Your task to perform on an android device: turn off location history Image 0: 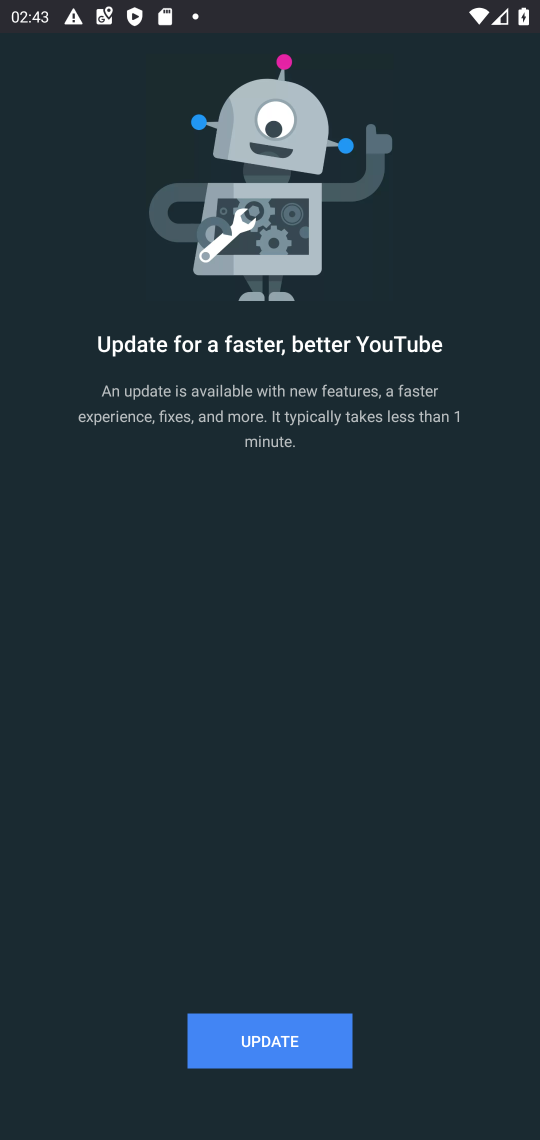
Step 0: press home button
Your task to perform on an android device: turn off location history Image 1: 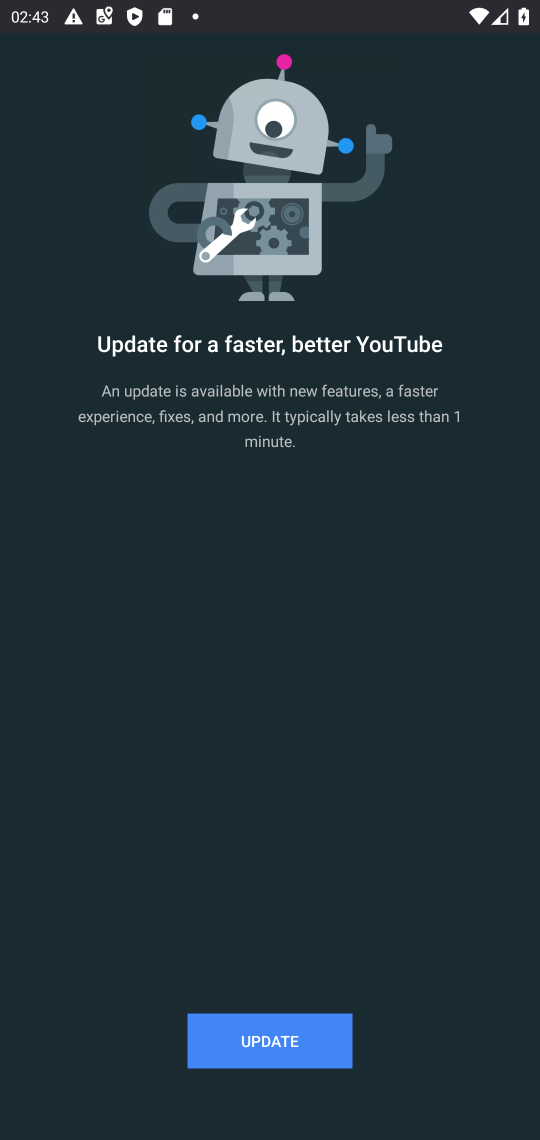
Step 1: press home button
Your task to perform on an android device: turn off location history Image 2: 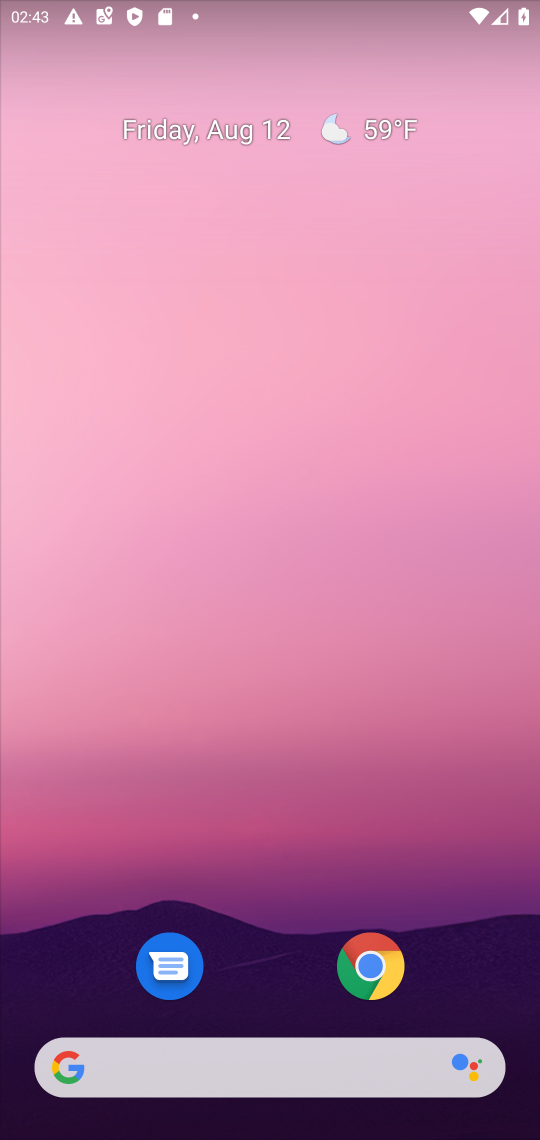
Step 2: drag from (251, 949) to (354, 15)
Your task to perform on an android device: turn off location history Image 3: 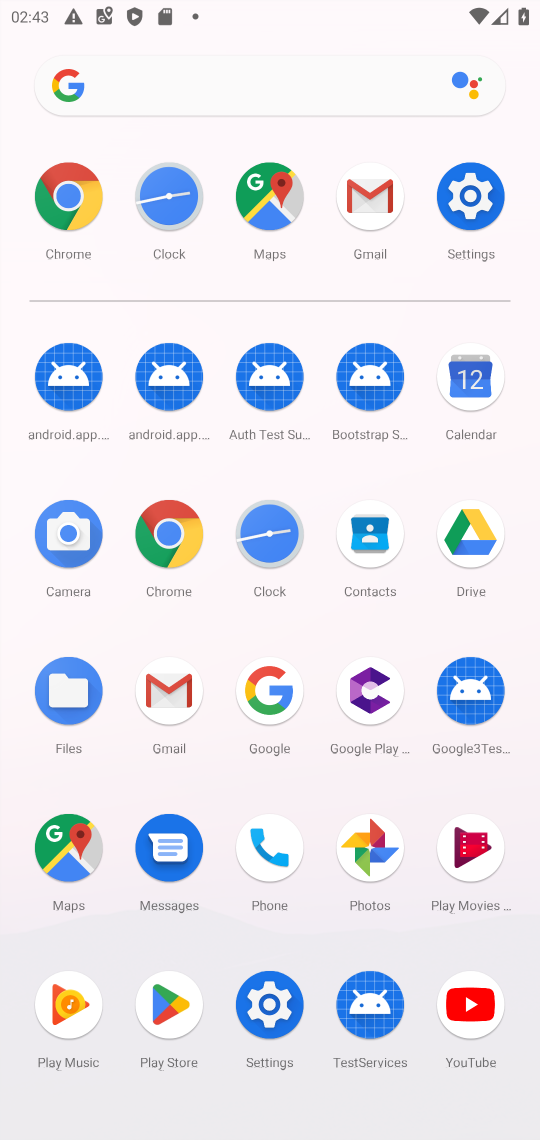
Step 3: click (274, 991)
Your task to perform on an android device: turn off location history Image 4: 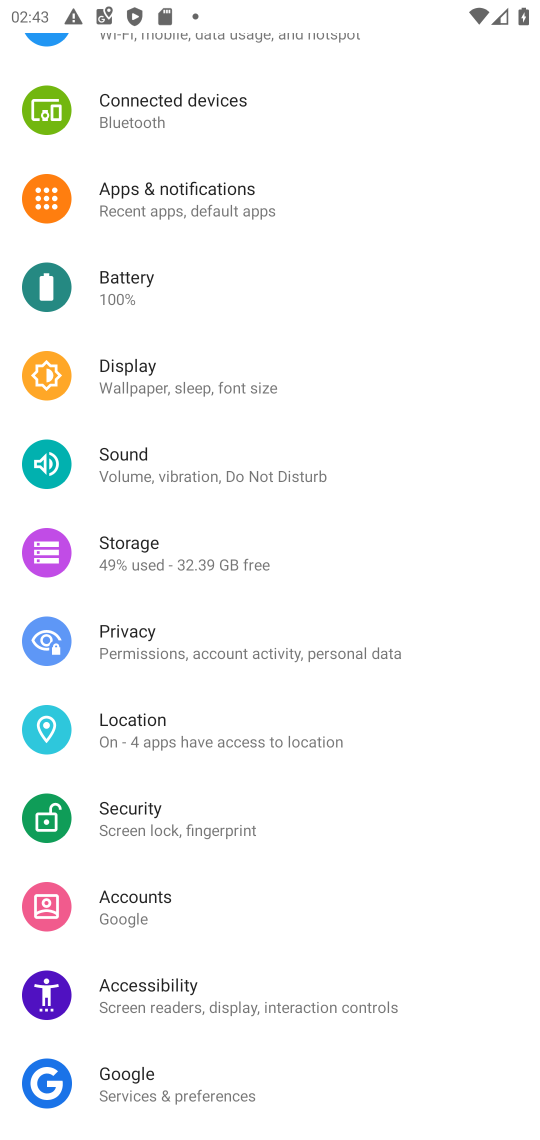
Step 4: click (185, 736)
Your task to perform on an android device: turn off location history Image 5: 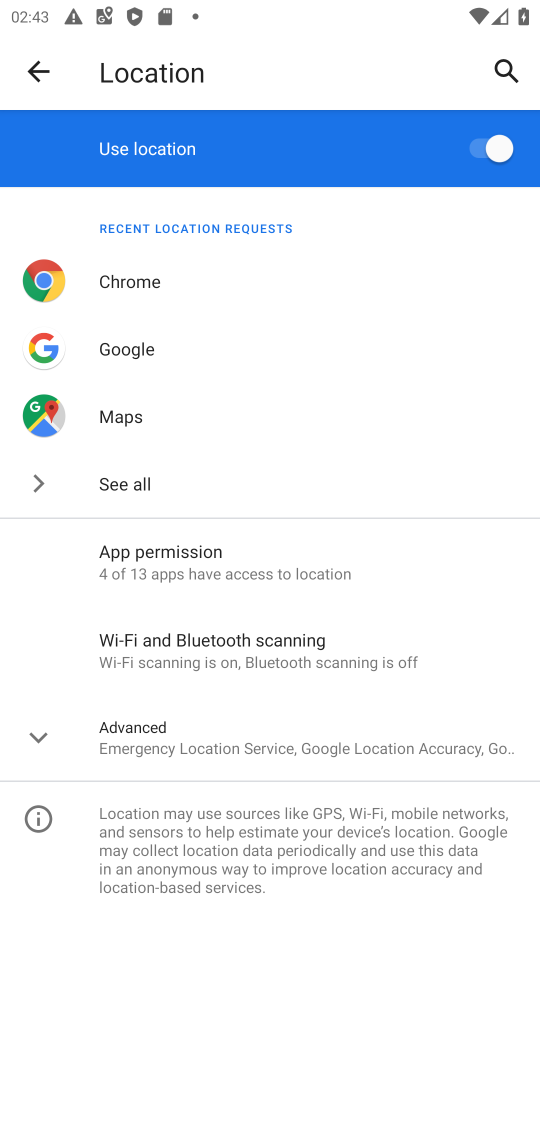
Step 5: click (203, 743)
Your task to perform on an android device: turn off location history Image 6: 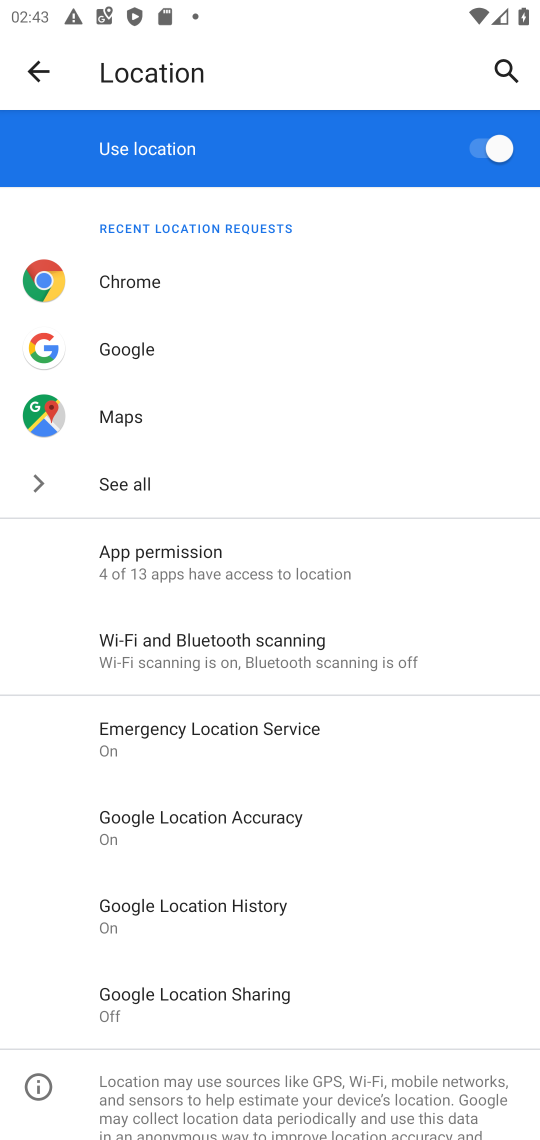
Step 6: click (246, 910)
Your task to perform on an android device: turn off location history Image 7: 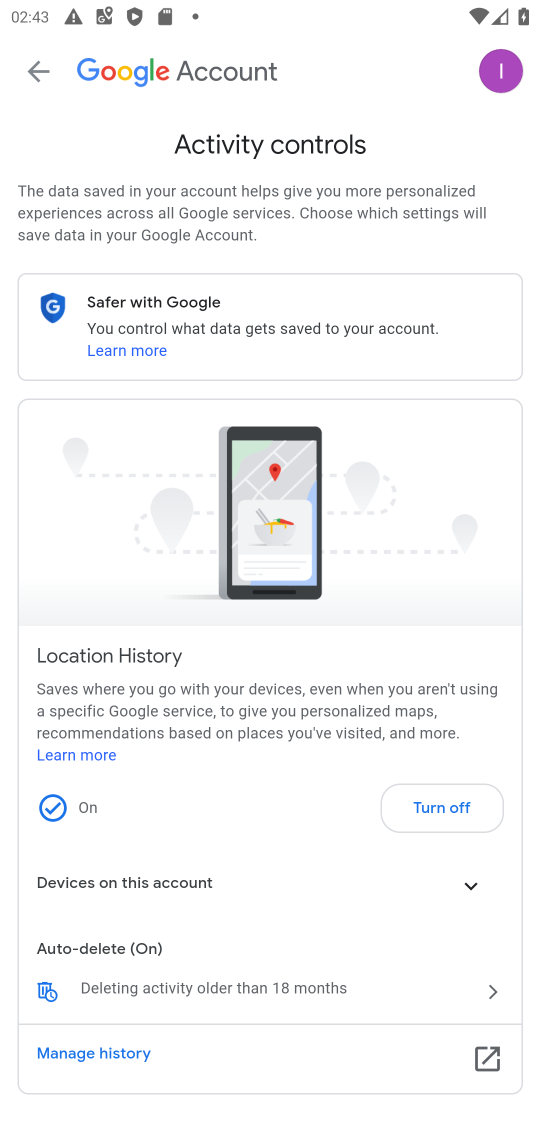
Step 7: click (444, 820)
Your task to perform on an android device: turn off location history Image 8: 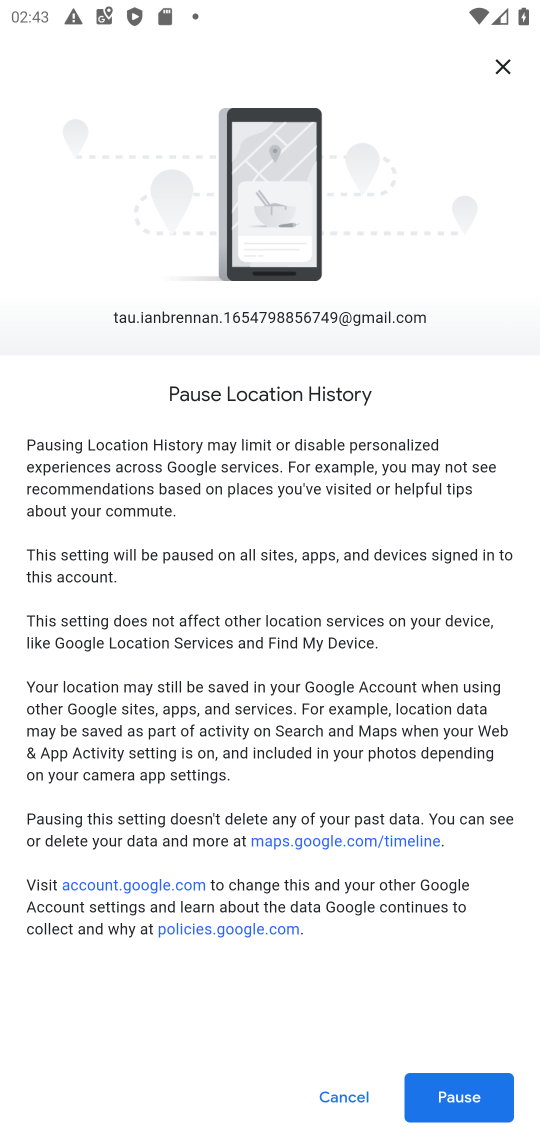
Step 8: drag from (389, 854) to (421, 289)
Your task to perform on an android device: turn off location history Image 9: 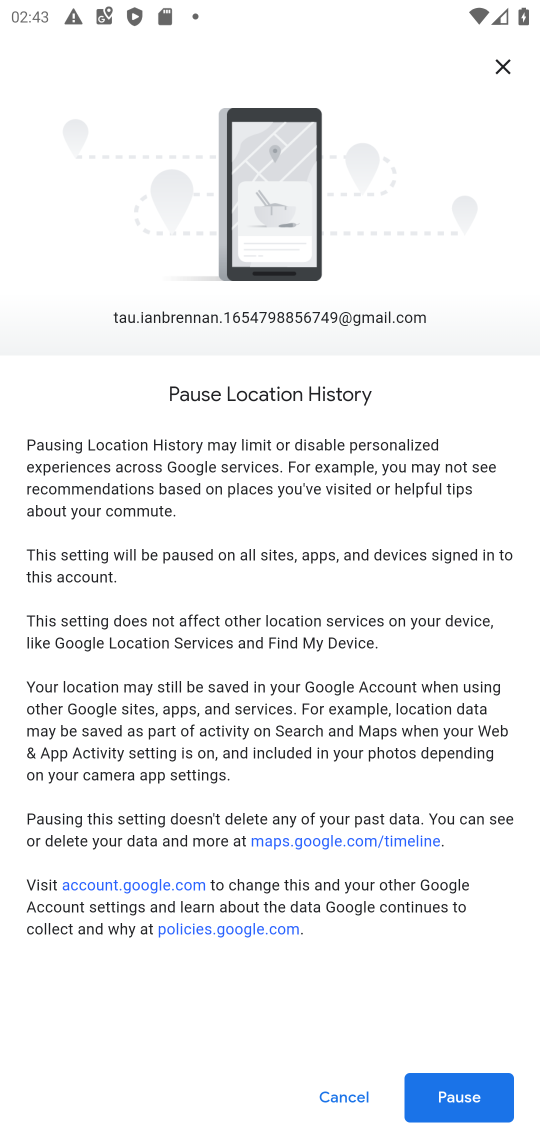
Step 9: click (437, 1097)
Your task to perform on an android device: turn off location history Image 10: 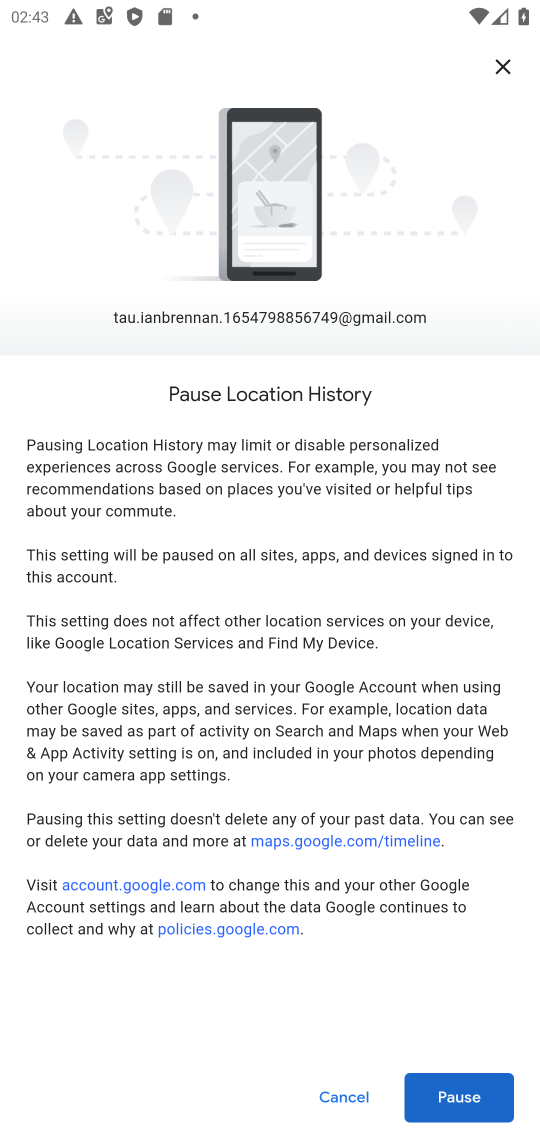
Step 10: click (435, 1093)
Your task to perform on an android device: turn off location history Image 11: 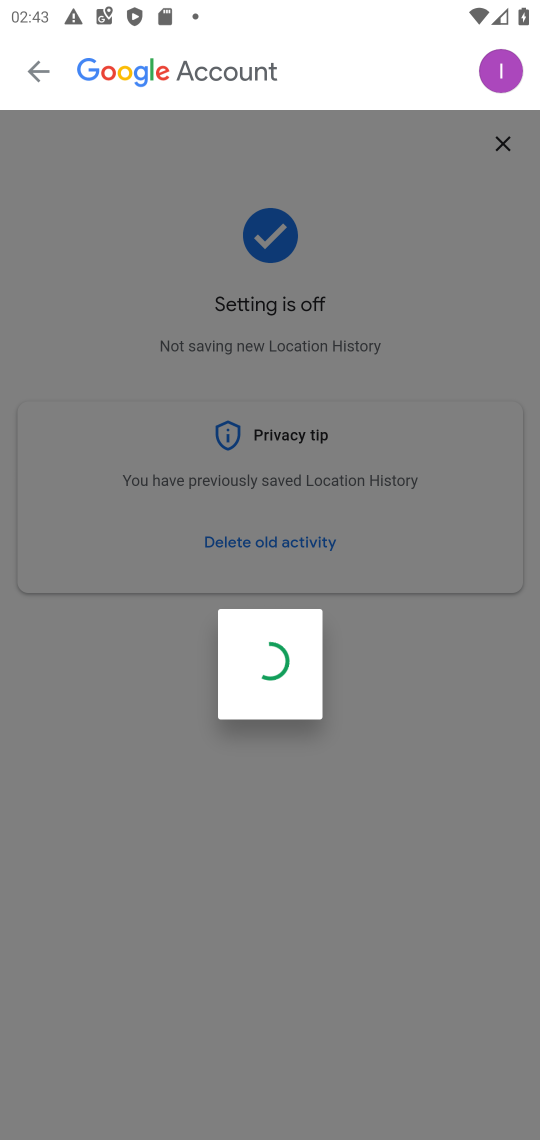
Step 11: click (454, 1079)
Your task to perform on an android device: turn off location history Image 12: 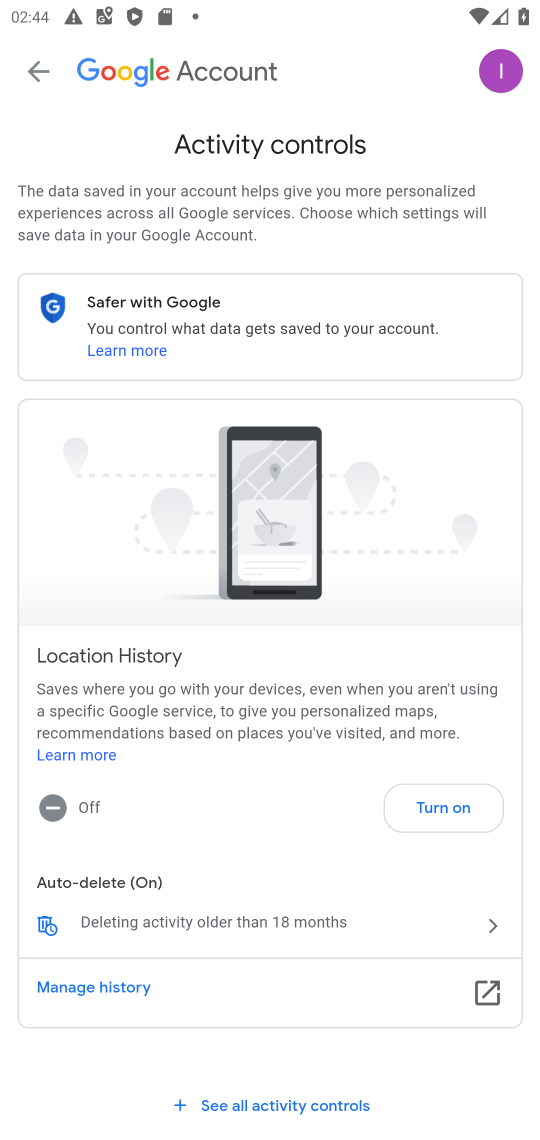
Step 12: task complete